Your task to perform on an android device: change the clock display to show seconds Image 0: 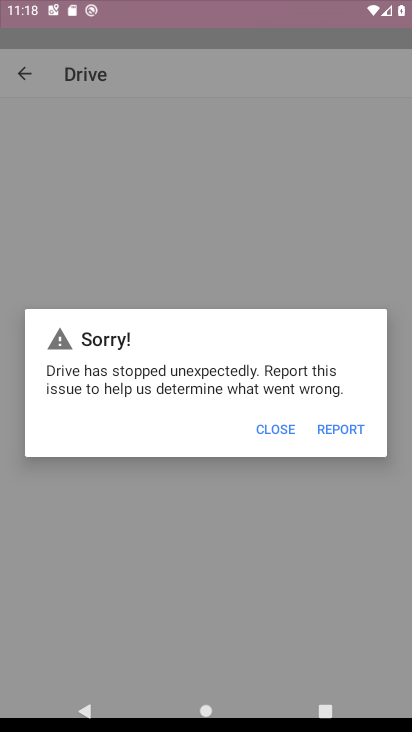
Step 0: click (23, 49)
Your task to perform on an android device: change the clock display to show seconds Image 1: 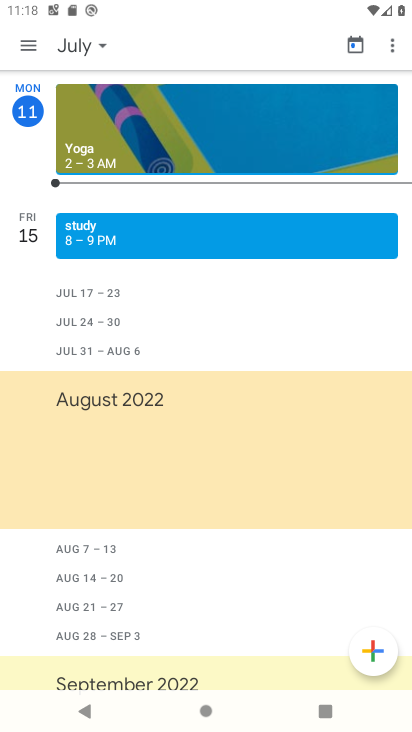
Step 1: press back button
Your task to perform on an android device: change the clock display to show seconds Image 2: 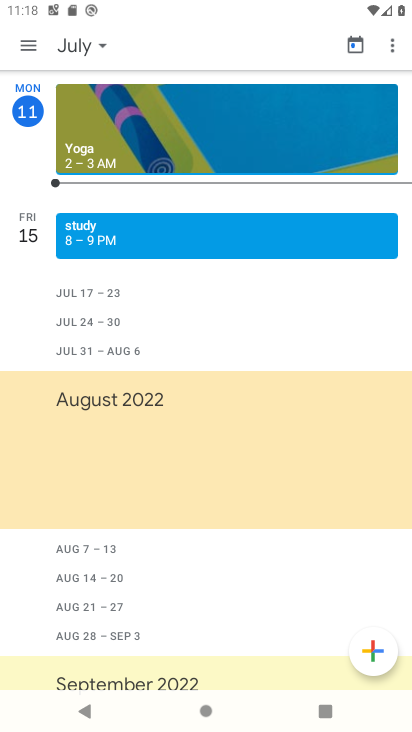
Step 2: press back button
Your task to perform on an android device: change the clock display to show seconds Image 3: 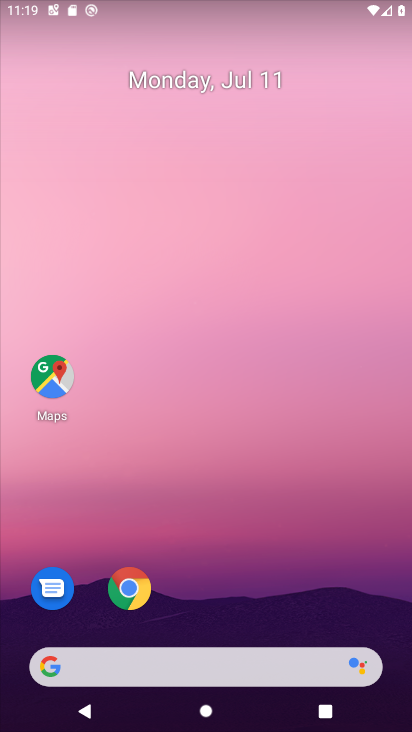
Step 3: drag from (218, 572) to (16, 9)
Your task to perform on an android device: change the clock display to show seconds Image 4: 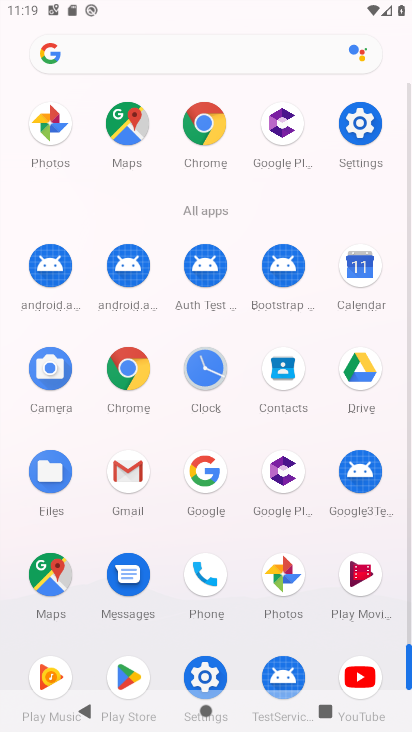
Step 4: click (213, 359)
Your task to perform on an android device: change the clock display to show seconds Image 5: 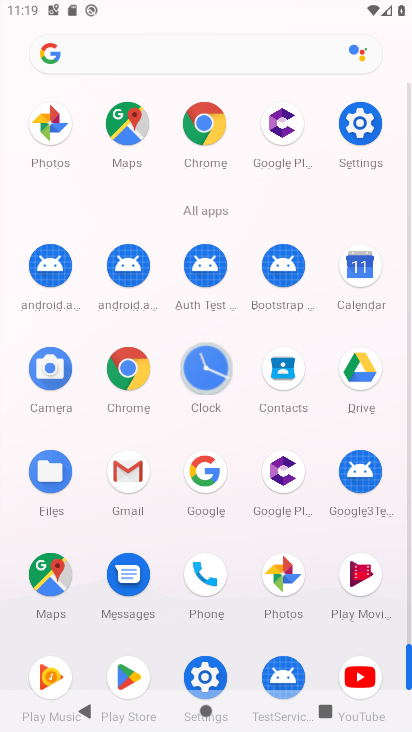
Step 5: click (212, 360)
Your task to perform on an android device: change the clock display to show seconds Image 6: 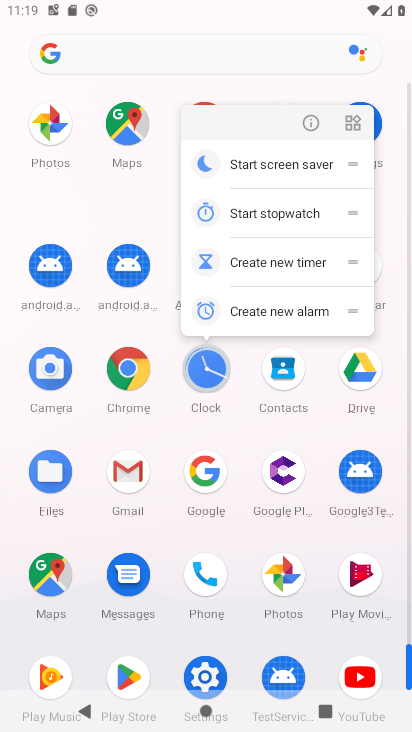
Step 6: click (213, 360)
Your task to perform on an android device: change the clock display to show seconds Image 7: 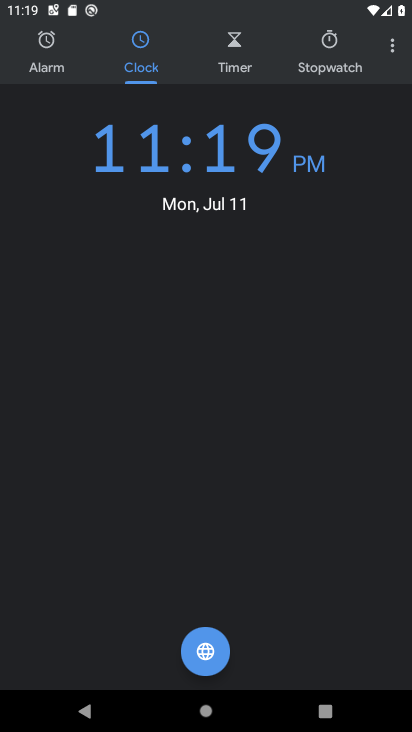
Step 7: click (378, 50)
Your task to perform on an android device: change the clock display to show seconds Image 8: 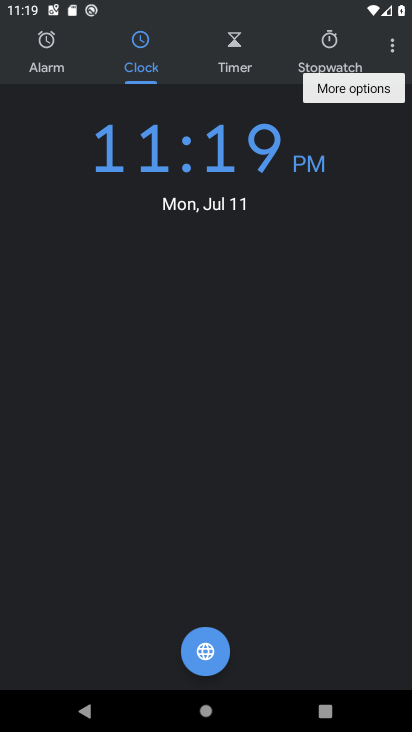
Step 8: click (394, 47)
Your task to perform on an android device: change the clock display to show seconds Image 9: 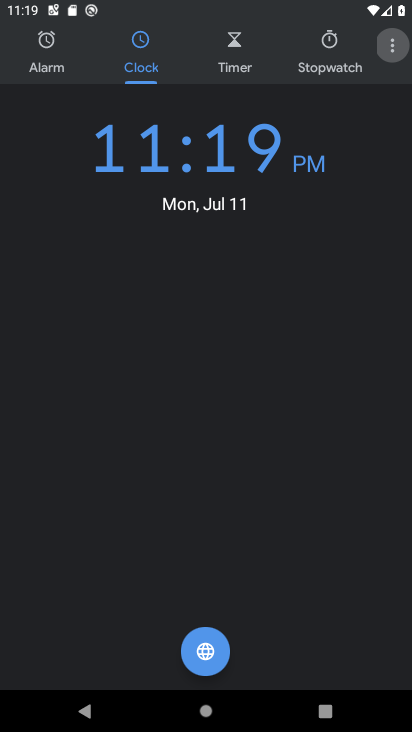
Step 9: click (392, 43)
Your task to perform on an android device: change the clock display to show seconds Image 10: 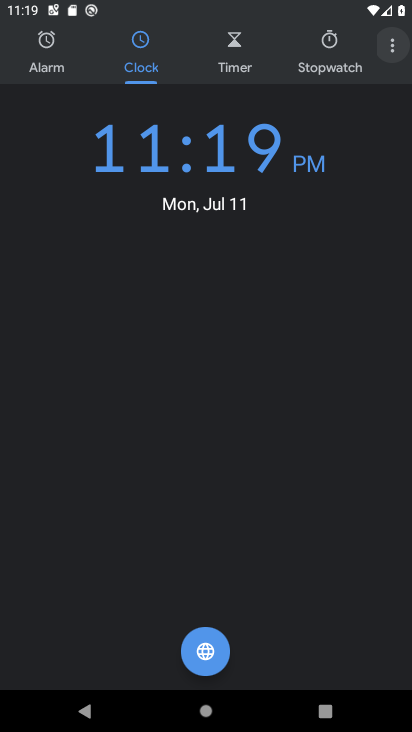
Step 10: click (391, 42)
Your task to perform on an android device: change the clock display to show seconds Image 11: 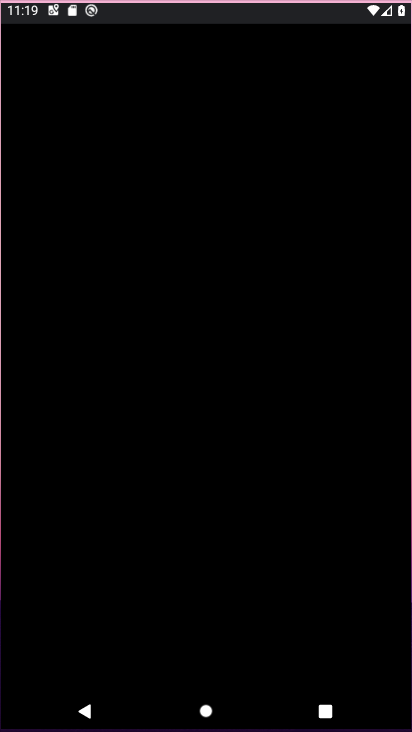
Step 11: click (293, 92)
Your task to perform on an android device: change the clock display to show seconds Image 12: 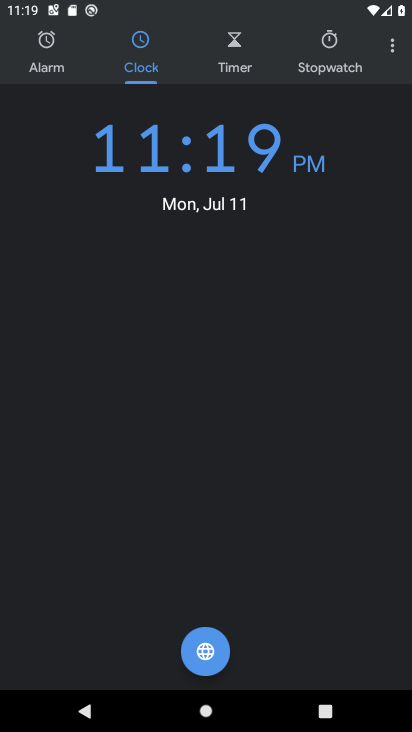
Step 12: press back button
Your task to perform on an android device: change the clock display to show seconds Image 13: 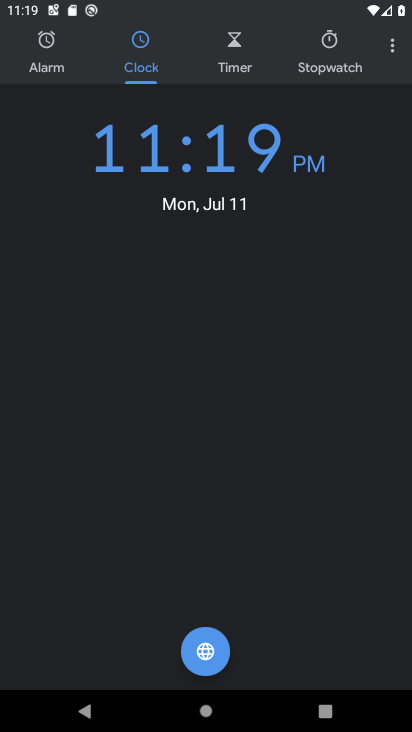
Step 13: click (396, 48)
Your task to perform on an android device: change the clock display to show seconds Image 14: 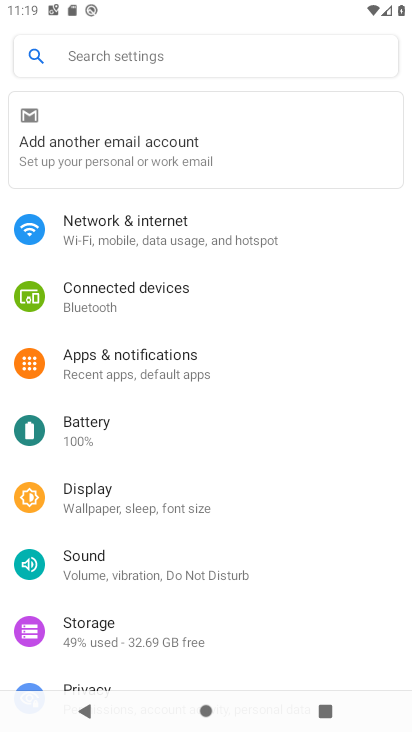
Step 14: click (204, 359)
Your task to perform on an android device: change the clock display to show seconds Image 15: 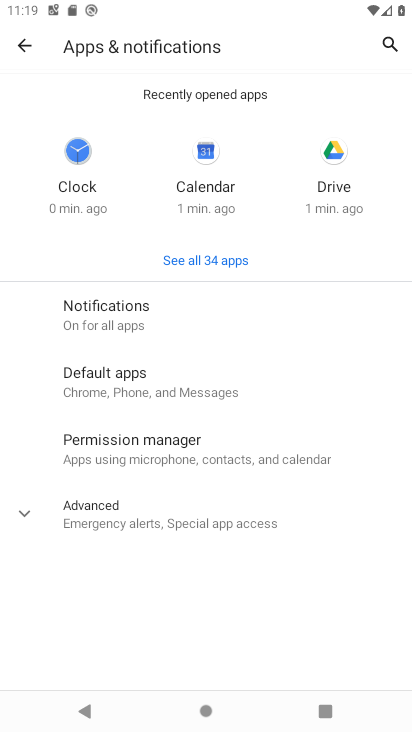
Step 15: click (21, 35)
Your task to perform on an android device: change the clock display to show seconds Image 16: 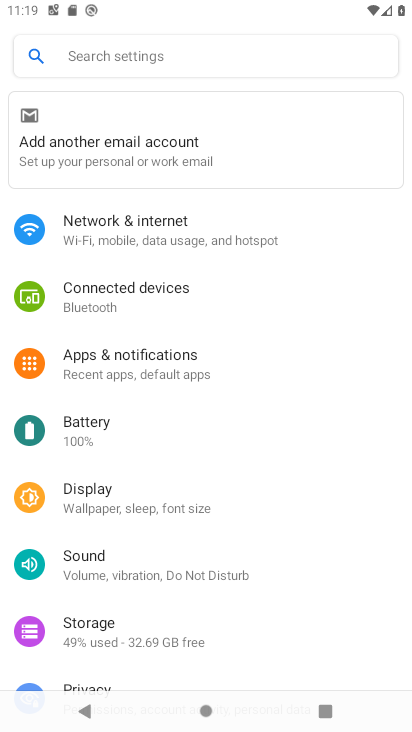
Step 16: press back button
Your task to perform on an android device: change the clock display to show seconds Image 17: 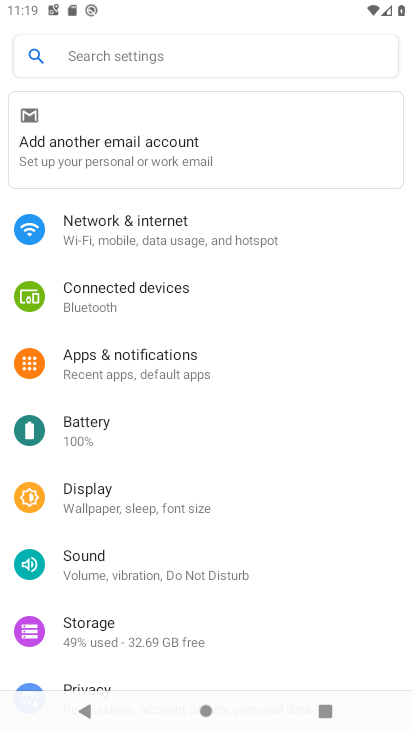
Step 17: press back button
Your task to perform on an android device: change the clock display to show seconds Image 18: 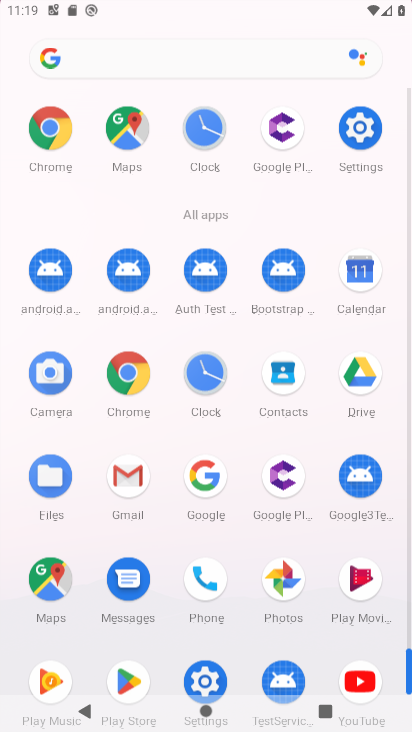
Step 18: press back button
Your task to perform on an android device: change the clock display to show seconds Image 19: 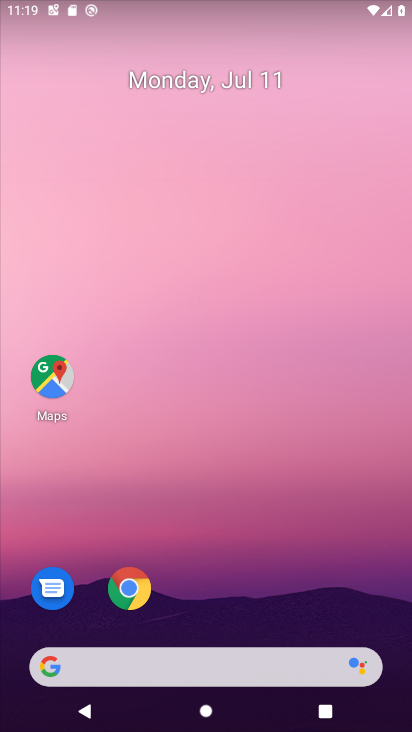
Step 19: drag from (242, 694) to (136, 226)
Your task to perform on an android device: change the clock display to show seconds Image 20: 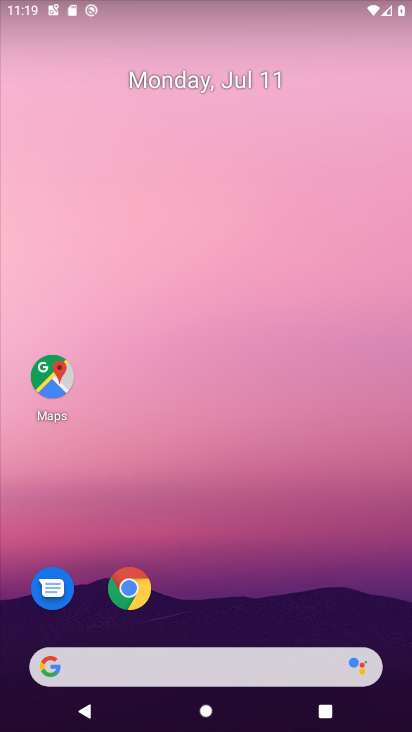
Step 20: drag from (207, 532) to (85, 12)
Your task to perform on an android device: change the clock display to show seconds Image 21: 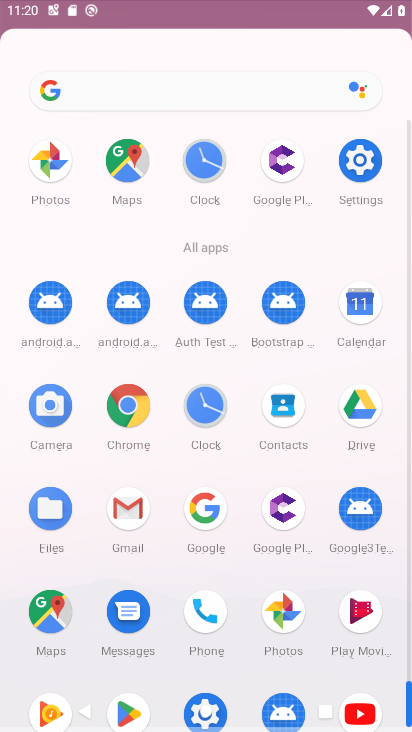
Step 21: drag from (196, 566) to (166, 78)
Your task to perform on an android device: change the clock display to show seconds Image 22: 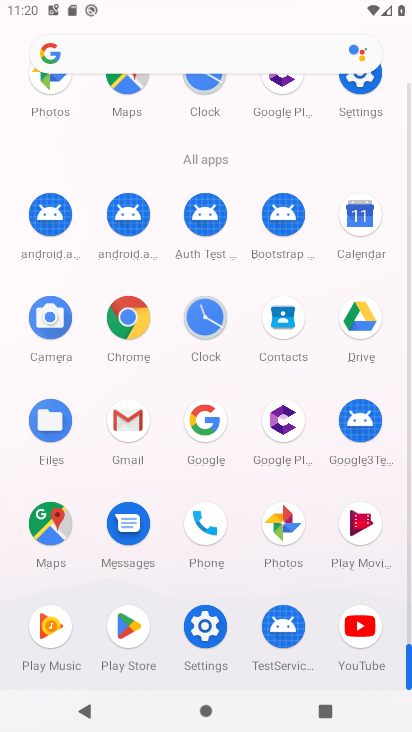
Step 22: click (203, 311)
Your task to perform on an android device: change the clock display to show seconds Image 23: 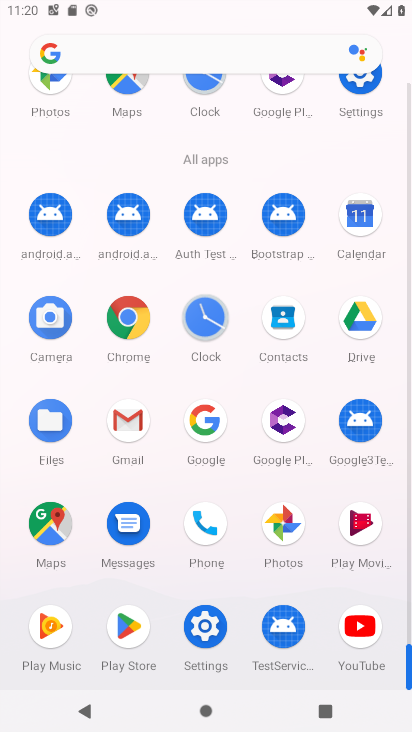
Step 23: click (204, 312)
Your task to perform on an android device: change the clock display to show seconds Image 24: 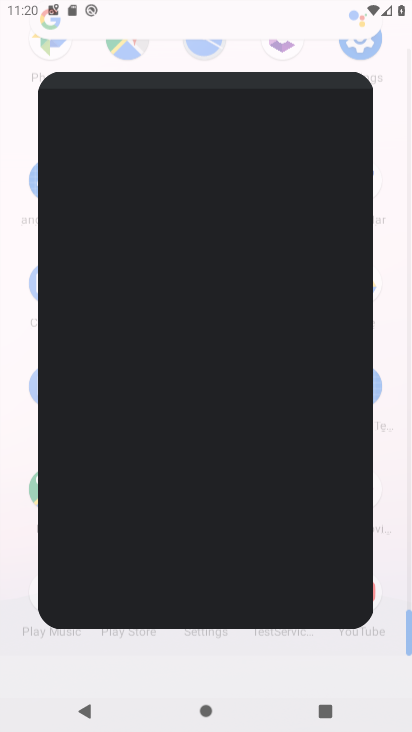
Step 24: click (205, 313)
Your task to perform on an android device: change the clock display to show seconds Image 25: 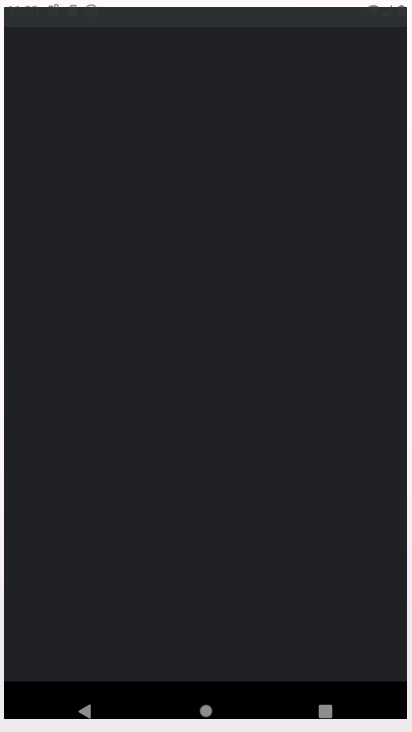
Step 25: click (205, 313)
Your task to perform on an android device: change the clock display to show seconds Image 26: 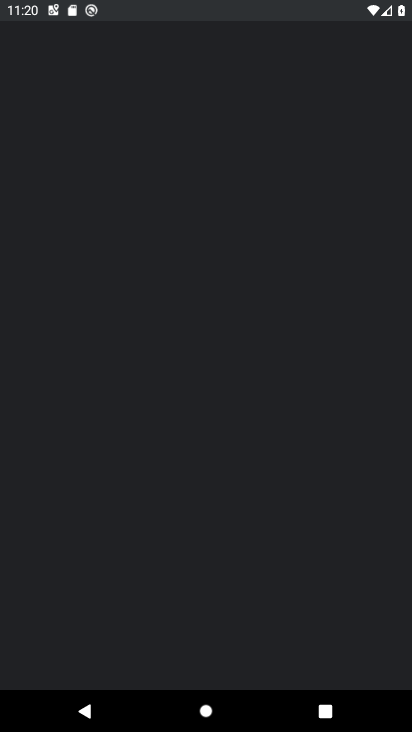
Step 26: click (206, 313)
Your task to perform on an android device: change the clock display to show seconds Image 27: 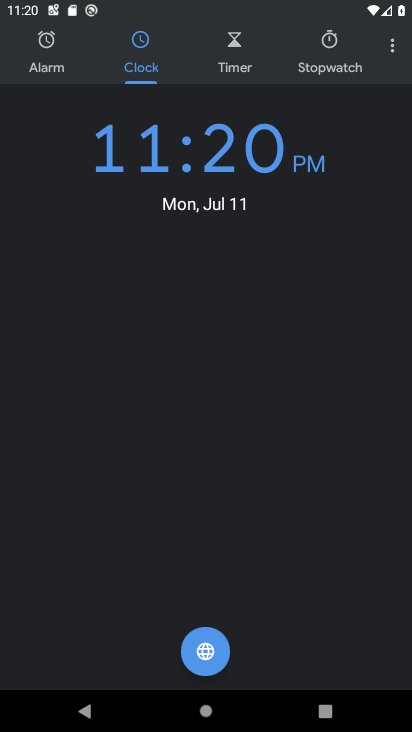
Step 27: click (386, 48)
Your task to perform on an android device: change the clock display to show seconds Image 28: 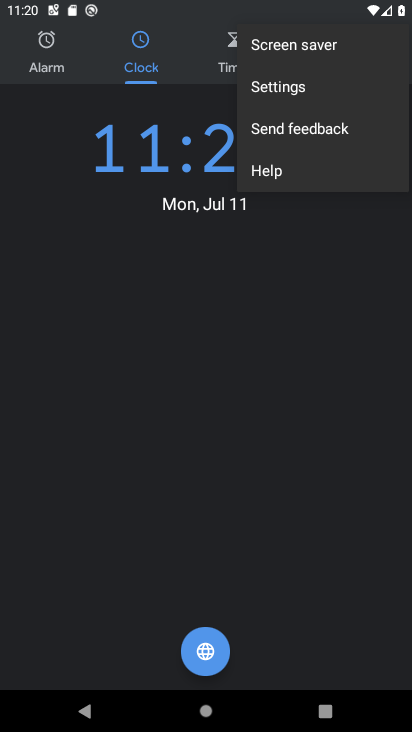
Step 28: click (300, 83)
Your task to perform on an android device: change the clock display to show seconds Image 29: 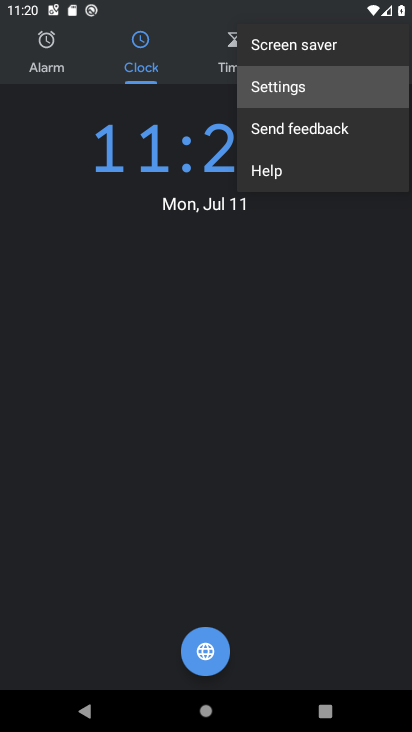
Step 29: click (298, 84)
Your task to perform on an android device: change the clock display to show seconds Image 30: 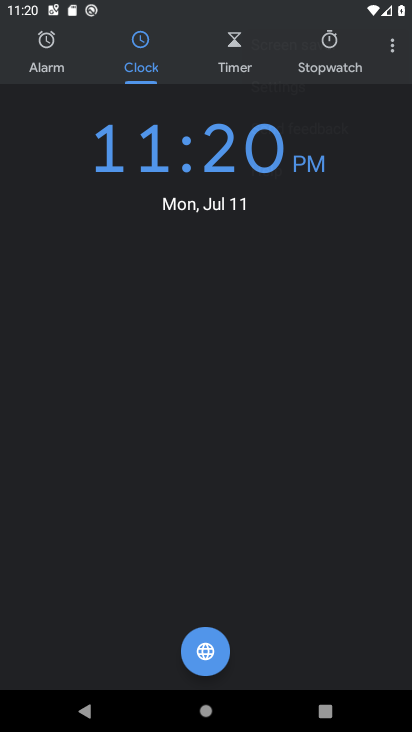
Step 30: click (298, 84)
Your task to perform on an android device: change the clock display to show seconds Image 31: 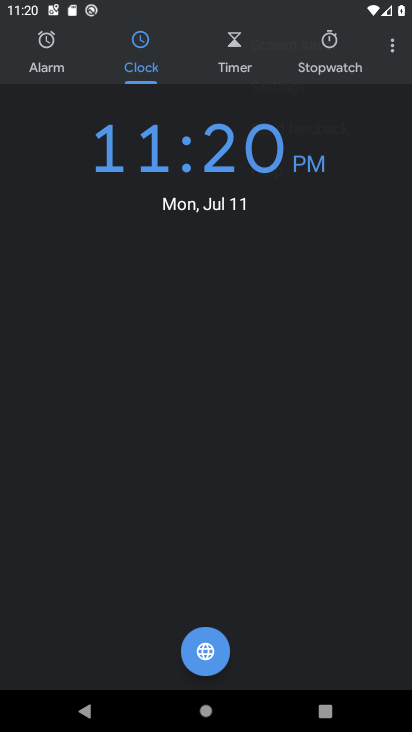
Step 31: click (298, 84)
Your task to perform on an android device: change the clock display to show seconds Image 32: 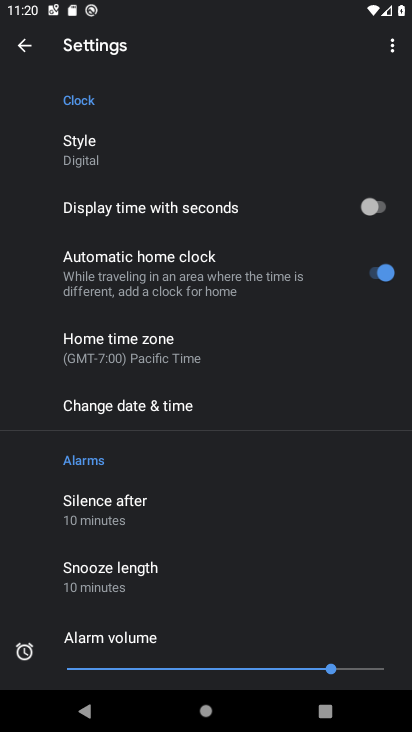
Step 32: click (373, 198)
Your task to perform on an android device: change the clock display to show seconds Image 33: 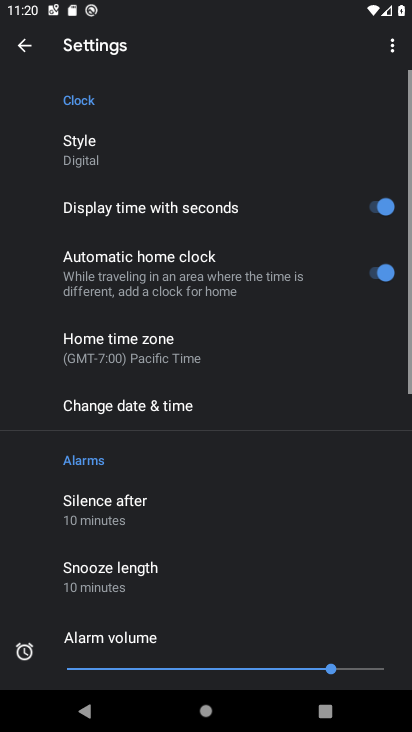
Step 33: task complete